Your task to perform on an android device: turn on javascript in the chrome app Image 0: 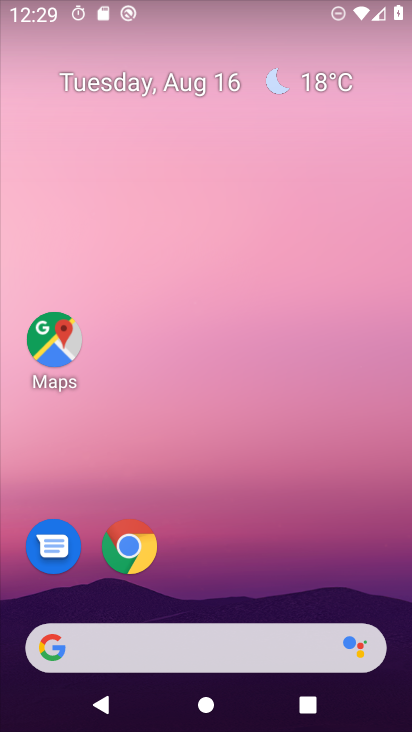
Step 0: click (127, 546)
Your task to perform on an android device: turn on javascript in the chrome app Image 1: 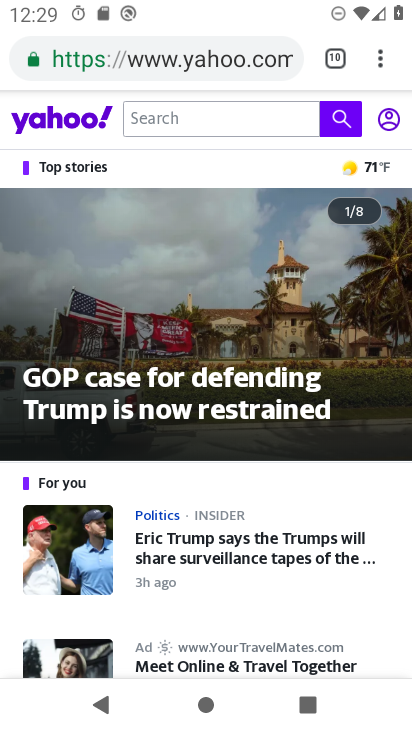
Step 1: click (382, 65)
Your task to perform on an android device: turn on javascript in the chrome app Image 2: 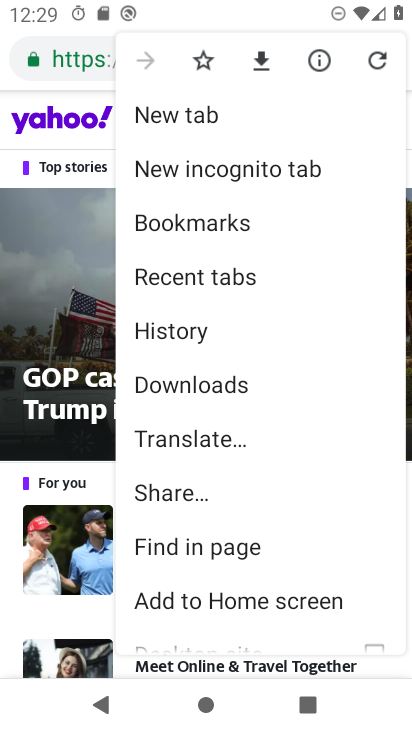
Step 2: drag from (223, 578) to (223, 213)
Your task to perform on an android device: turn on javascript in the chrome app Image 3: 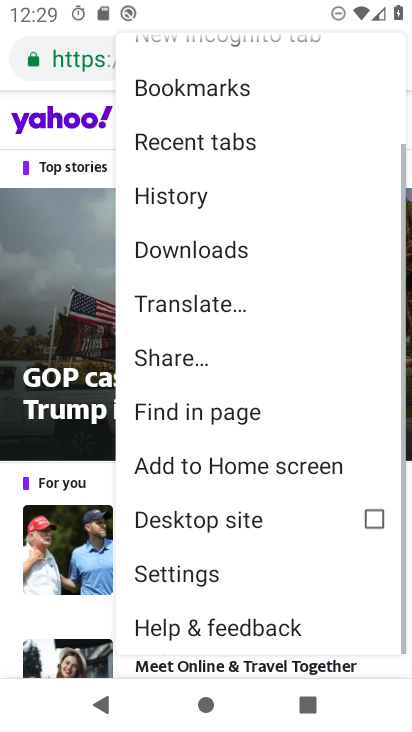
Step 3: click (190, 574)
Your task to perform on an android device: turn on javascript in the chrome app Image 4: 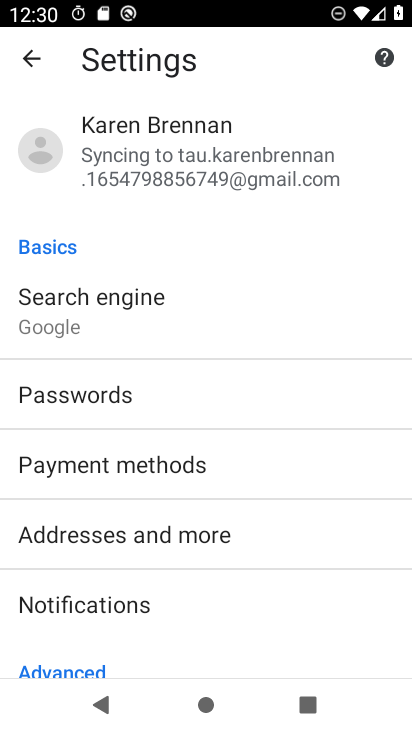
Step 4: drag from (92, 609) to (73, 281)
Your task to perform on an android device: turn on javascript in the chrome app Image 5: 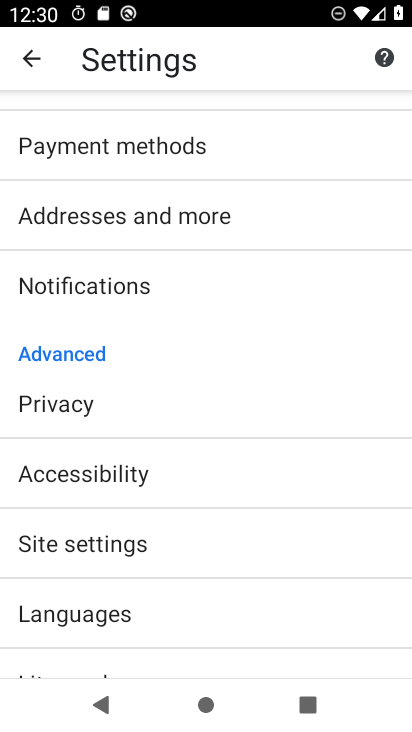
Step 5: click (97, 542)
Your task to perform on an android device: turn on javascript in the chrome app Image 6: 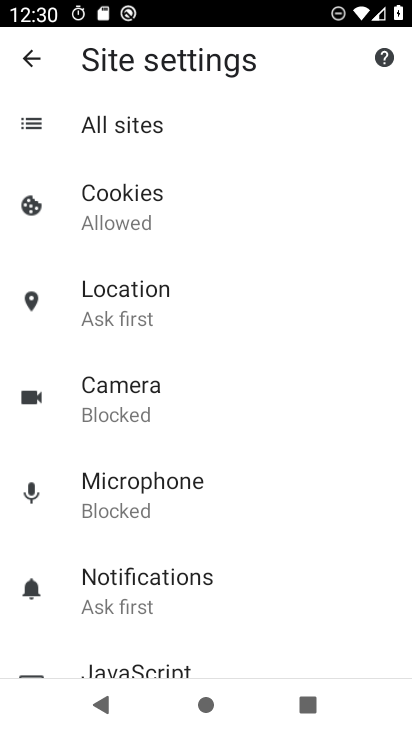
Step 6: click (173, 665)
Your task to perform on an android device: turn on javascript in the chrome app Image 7: 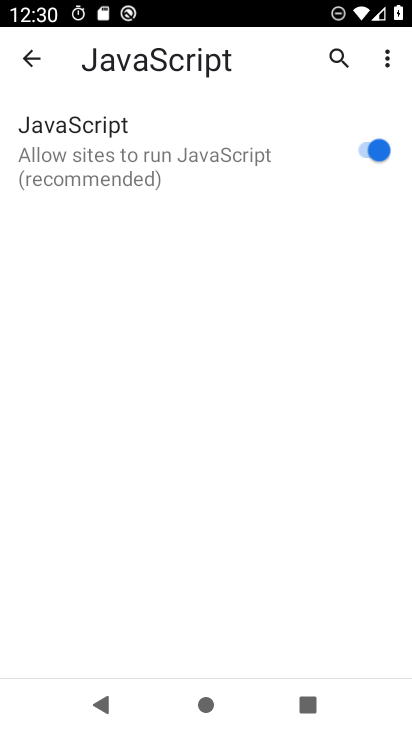
Step 7: task complete